Your task to perform on an android device: Open accessibility settings Image 0: 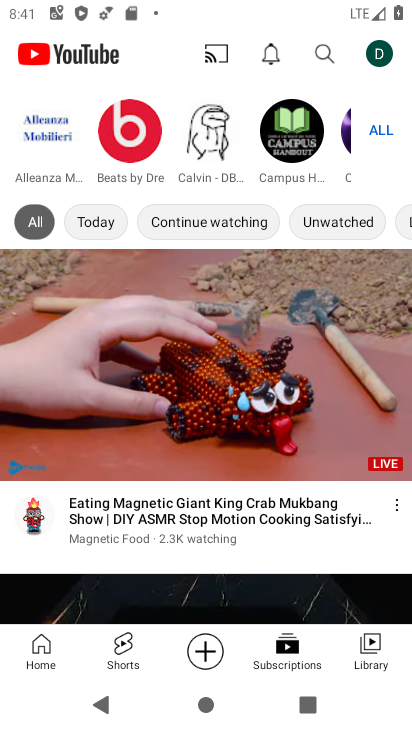
Step 0: press home button
Your task to perform on an android device: Open accessibility settings Image 1: 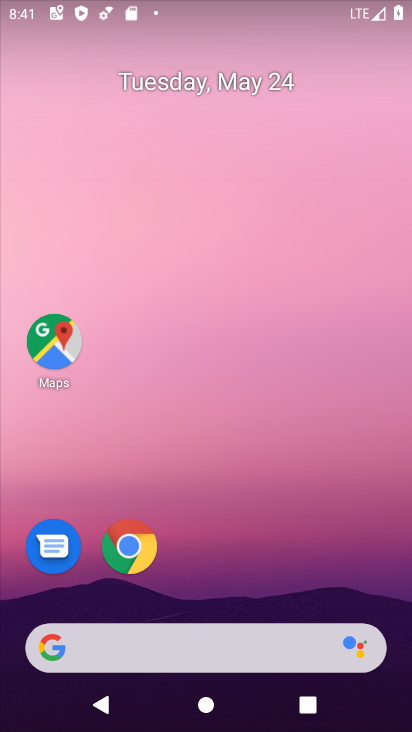
Step 1: drag from (259, 556) to (296, 7)
Your task to perform on an android device: Open accessibility settings Image 2: 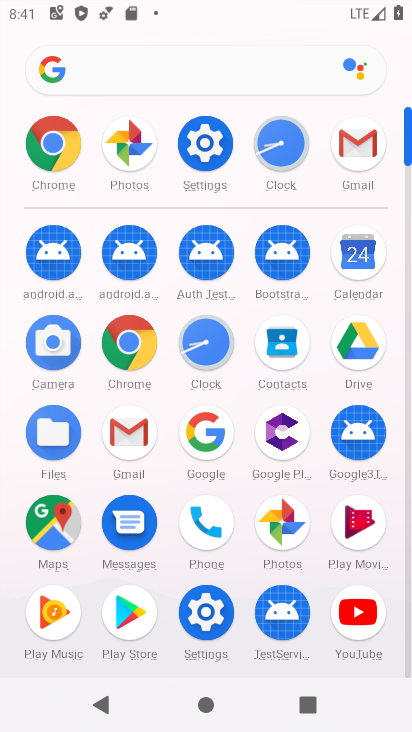
Step 2: click (215, 129)
Your task to perform on an android device: Open accessibility settings Image 3: 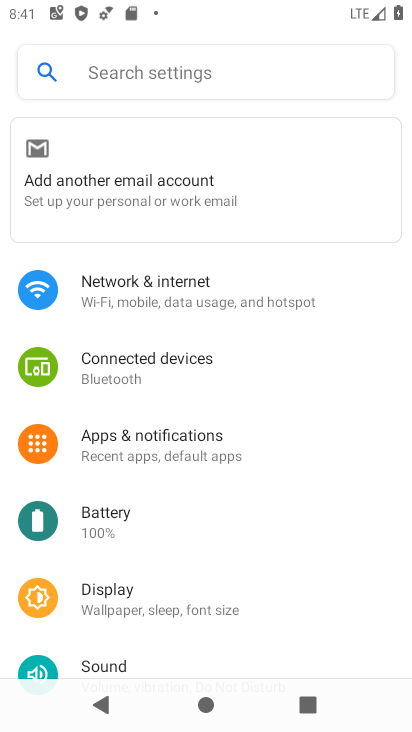
Step 3: drag from (185, 578) to (246, 12)
Your task to perform on an android device: Open accessibility settings Image 4: 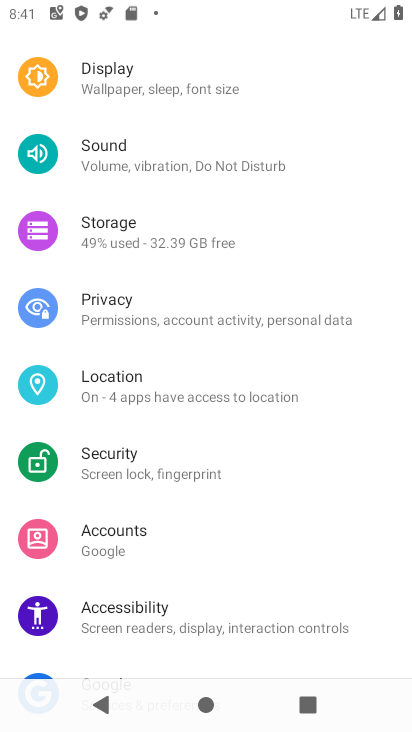
Step 4: click (174, 620)
Your task to perform on an android device: Open accessibility settings Image 5: 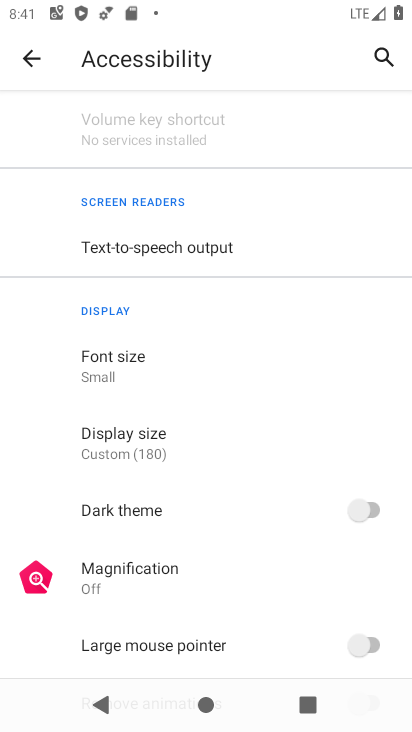
Step 5: task complete